Your task to perform on an android device: show emergency info Image 0: 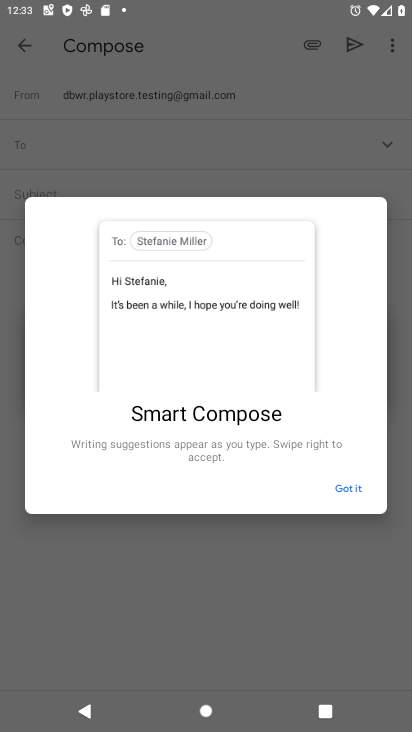
Step 0: press home button
Your task to perform on an android device: show emergency info Image 1: 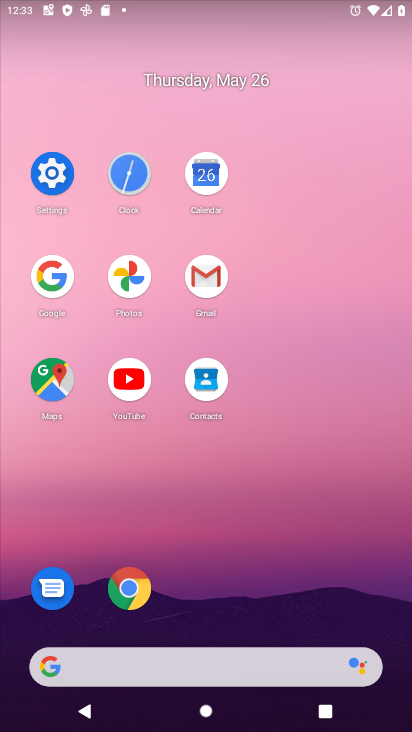
Step 1: click (41, 160)
Your task to perform on an android device: show emergency info Image 2: 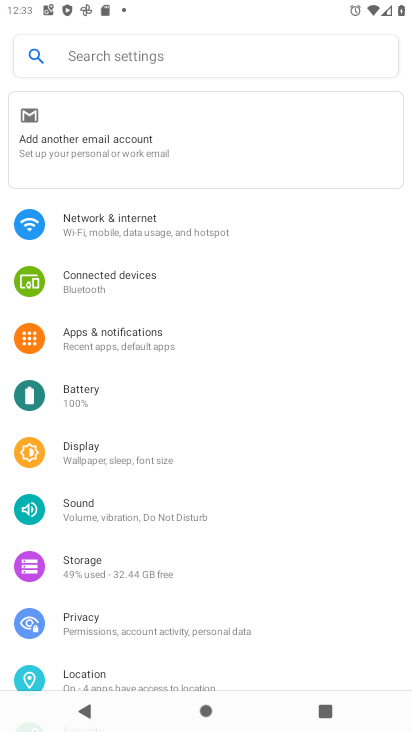
Step 2: drag from (155, 644) to (232, 212)
Your task to perform on an android device: show emergency info Image 3: 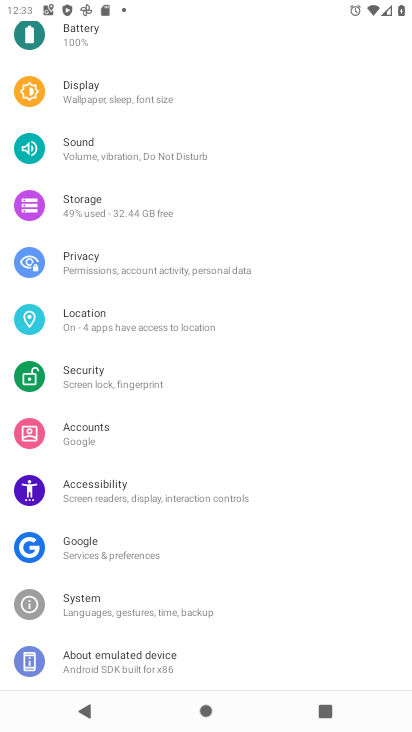
Step 3: click (236, 657)
Your task to perform on an android device: show emergency info Image 4: 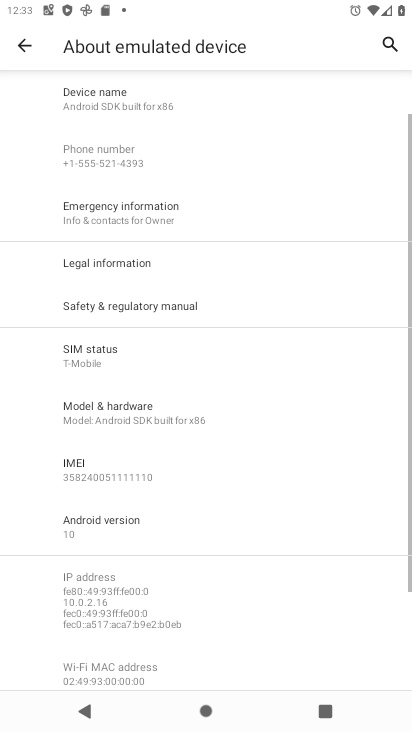
Step 4: drag from (249, 505) to (246, 231)
Your task to perform on an android device: show emergency info Image 5: 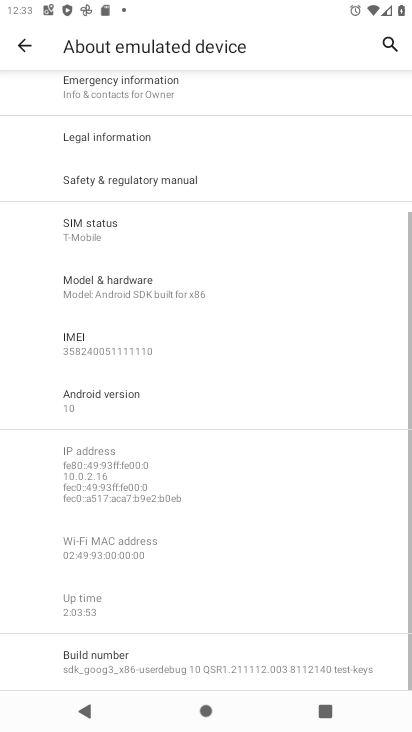
Step 5: drag from (247, 228) to (233, 554)
Your task to perform on an android device: show emergency info Image 6: 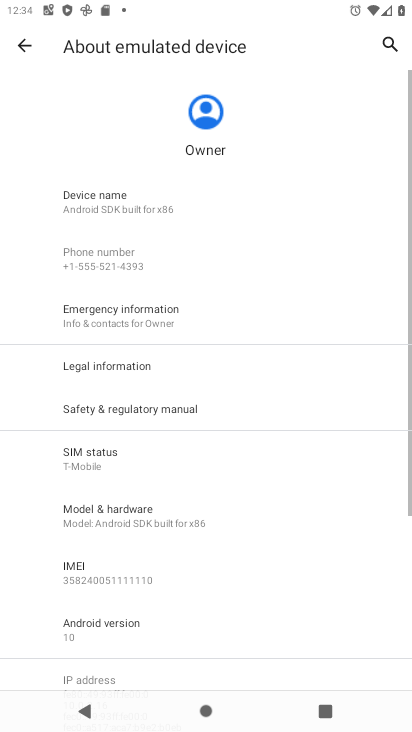
Step 6: drag from (224, 537) to (254, 330)
Your task to perform on an android device: show emergency info Image 7: 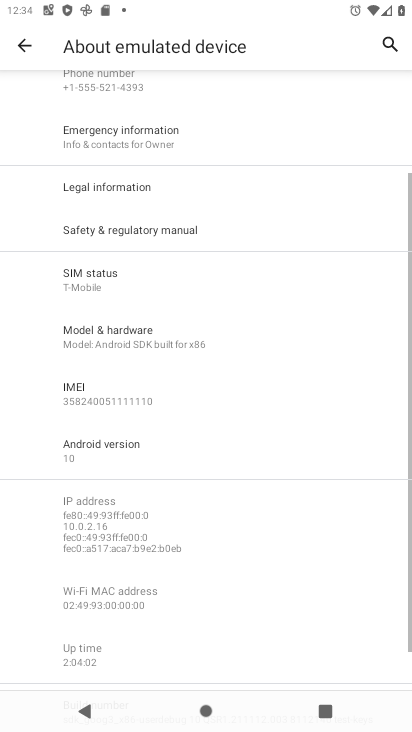
Step 7: drag from (331, 180) to (312, 482)
Your task to perform on an android device: show emergency info Image 8: 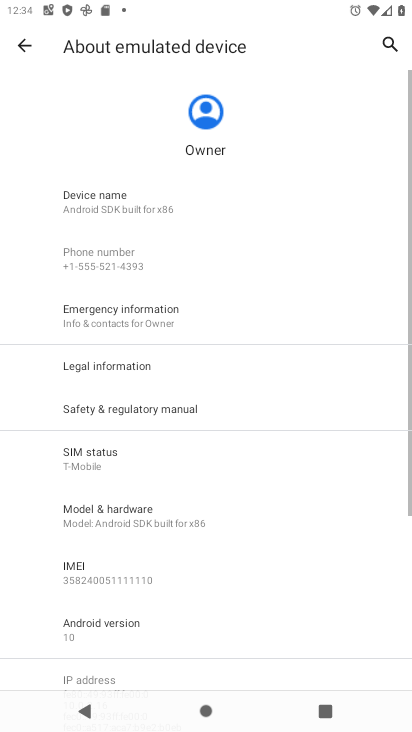
Step 8: click (190, 320)
Your task to perform on an android device: show emergency info Image 9: 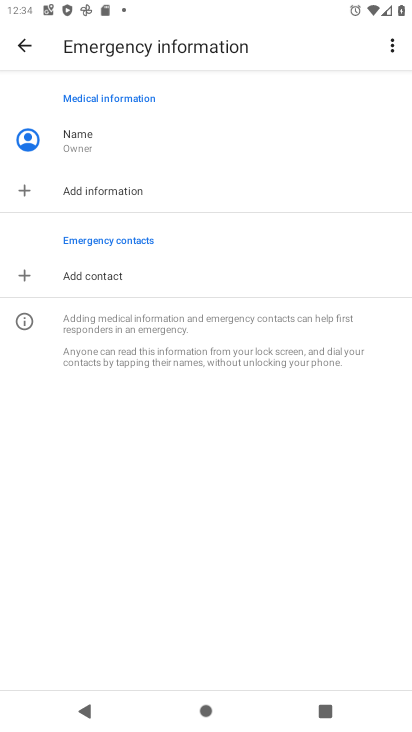
Step 9: task complete